Your task to perform on an android device: Search for Mexican restaurants on Maps Image 0: 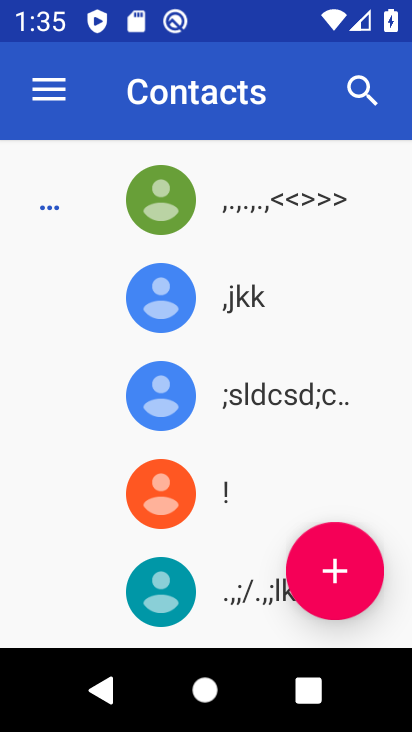
Step 0: press home button
Your task to perform on an android device: Search for Mexican restaurants on Maps Image 1: 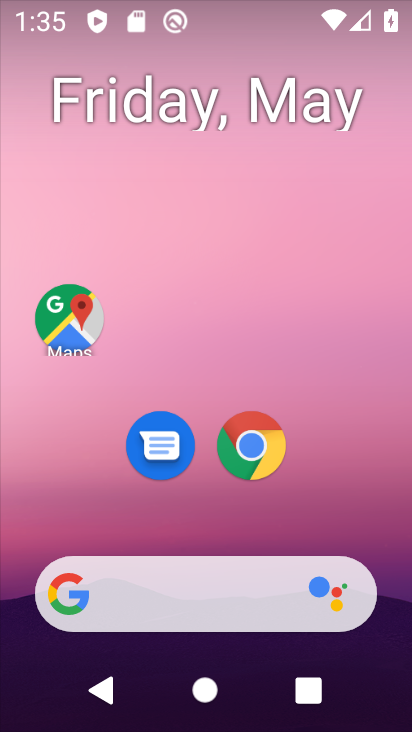
Step 1: click (69, 313)
Your task to perform on an android device: Search for Mexican restaurants on Maps Image 2: 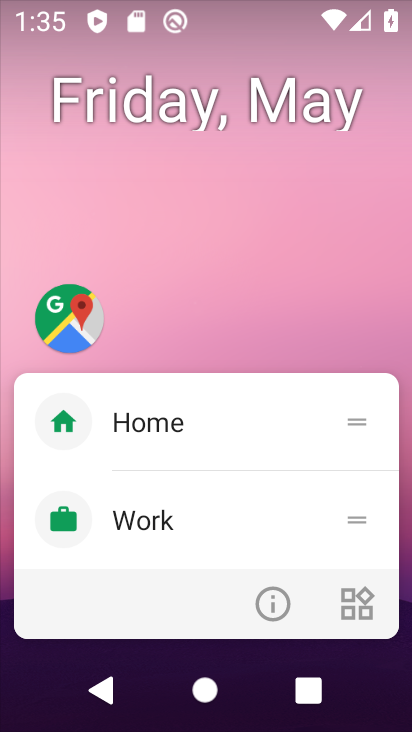
Step 2: click (218, 292)
Your task to perform on an android device: Search for Mexican restaurants on Maps Image 3: 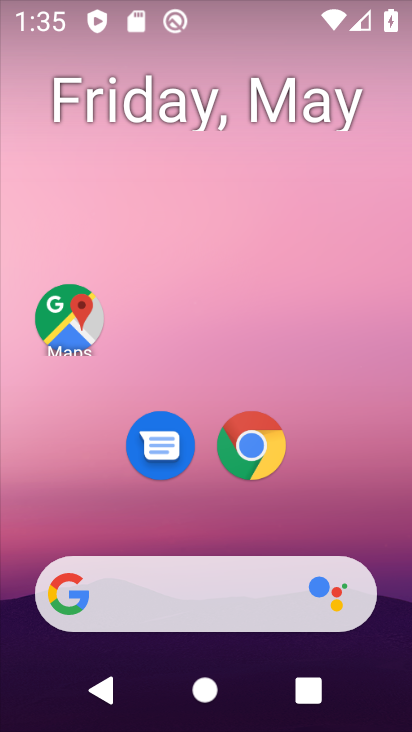
Step 3: click (72, 314)
Your task to perform on an android device: Search for Mexican restaurants on Maps Image 4: 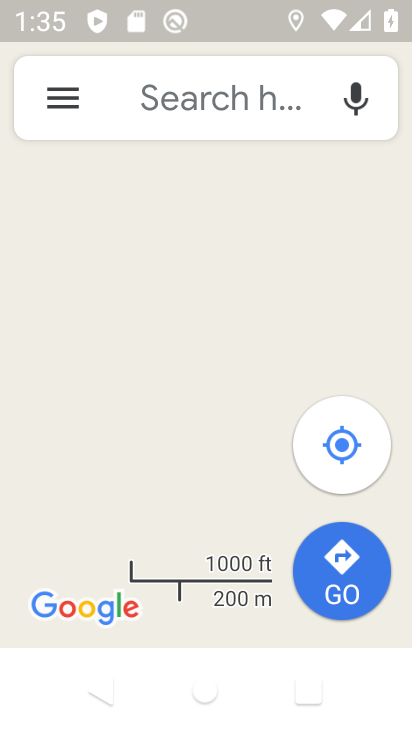
Step 4: click (181, 100)
Your task to perform on an android device: Search for Mexican restaurants on Maps Image 5: 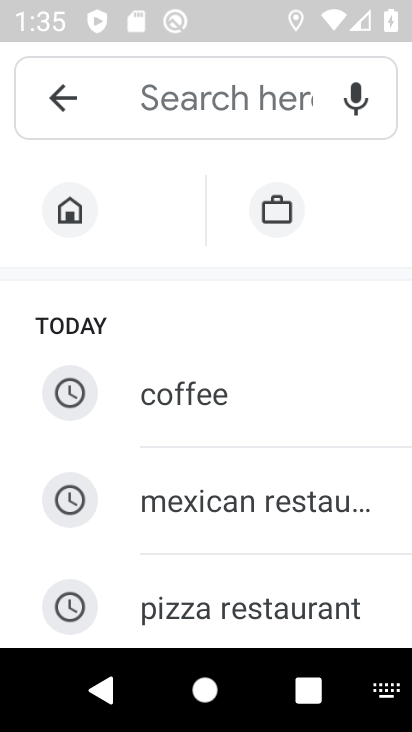
Step 5: type "mexican"
Your task to perform on an android device: Search for Mexican restaurants on Maps Image 6: 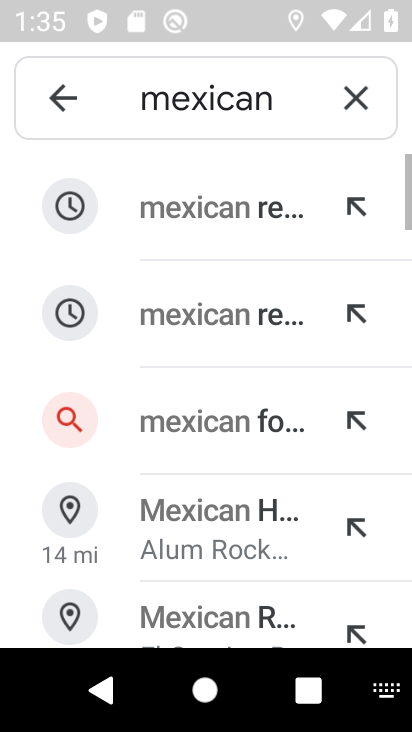
Step 6: click (209, 222)
Your task to perform on an android device: Search for Mexican restaurants on Maps Image 7: 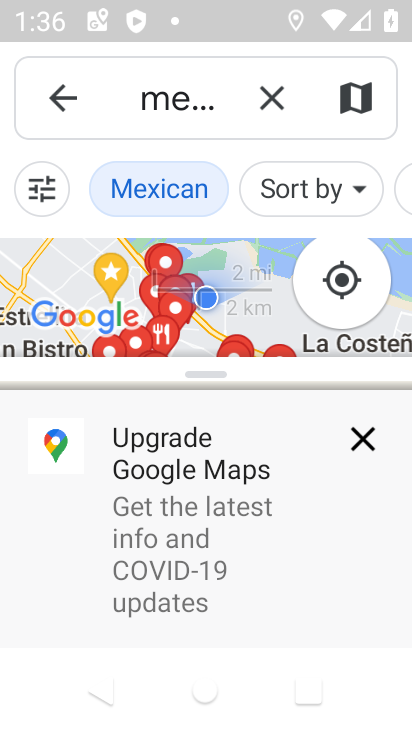
Step 7: click (360, 436)
Your task to perform on an android device: Search for Mexican restaurants on Maps Image 8: 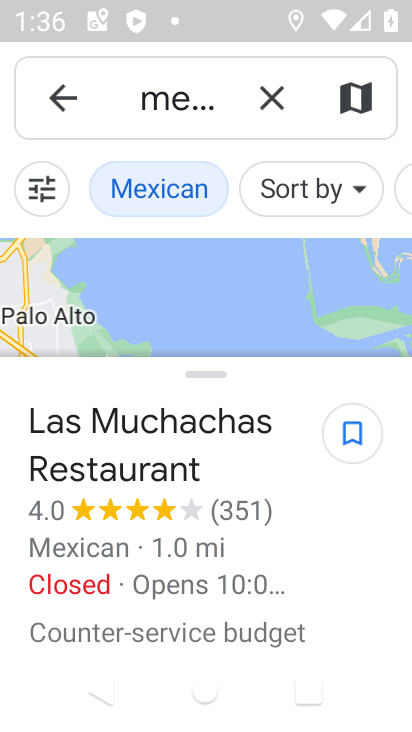
Step 8: task complete